Your task to perform on an android device: Search for a 36" x 48" whiteboard on Home Depot Image 0: 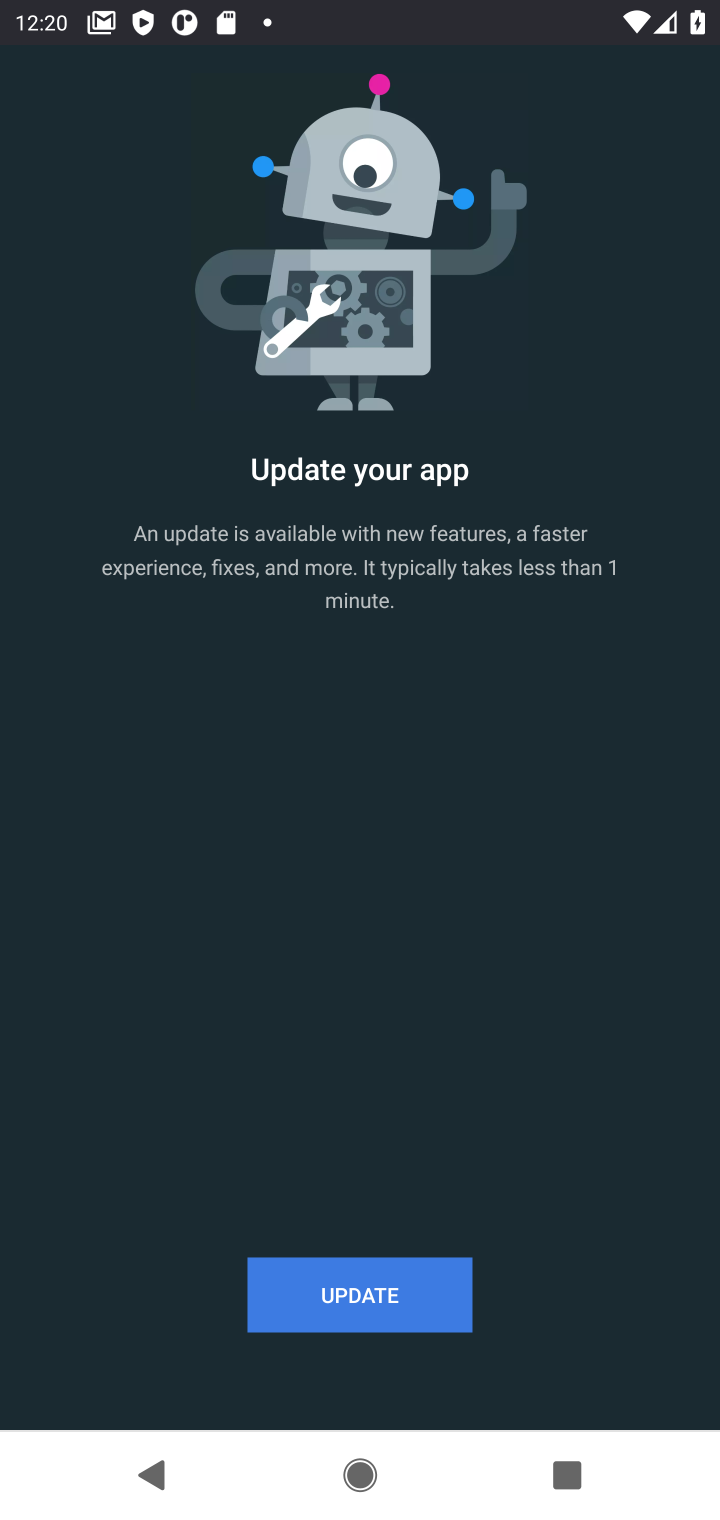
Step 0: press home button
Your task to perform on an android device: Search for a 36" x 48" whiteboard on Home Depot Image 1: 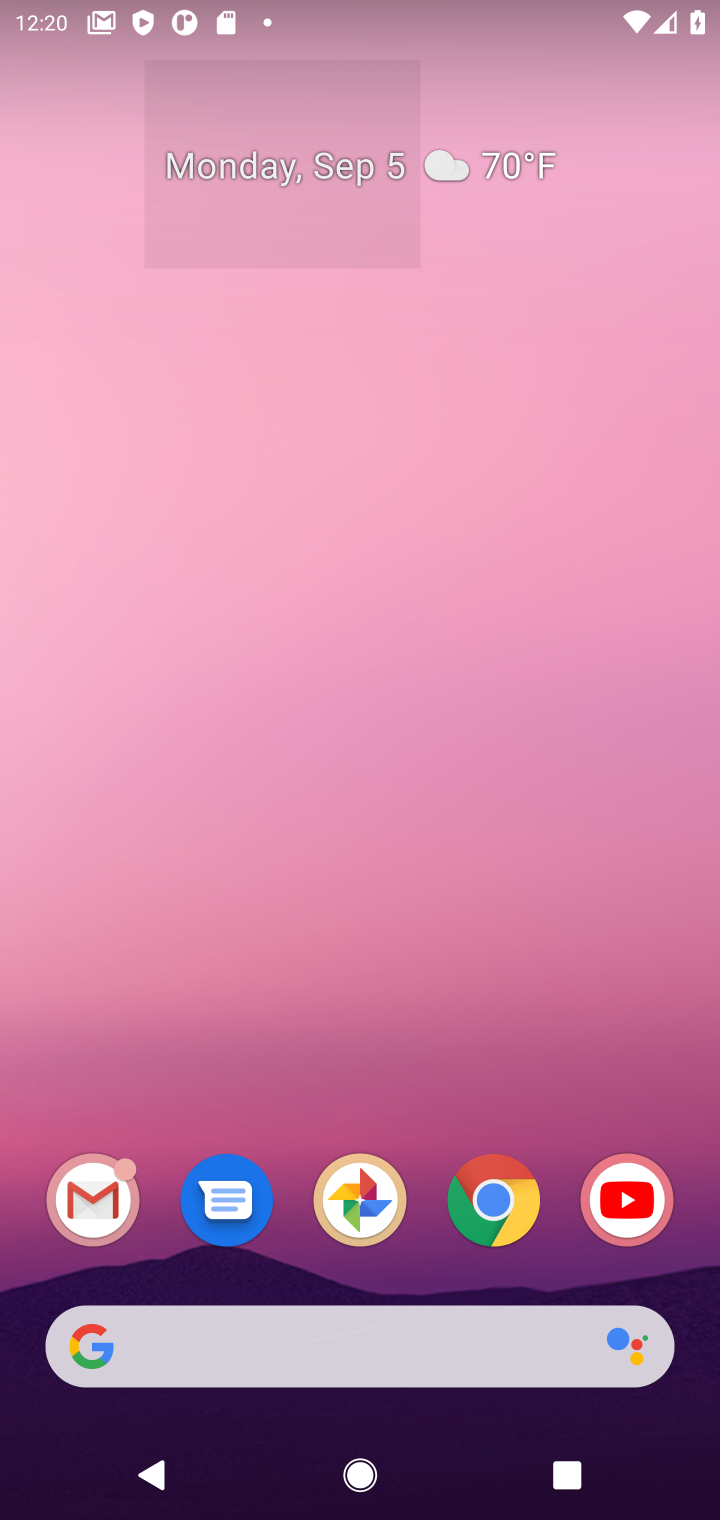
Step 1: click (483, 1219)
Your task to perform on an android device: Search for a 36" x 48" whiteboard on Home Depot Image 2: 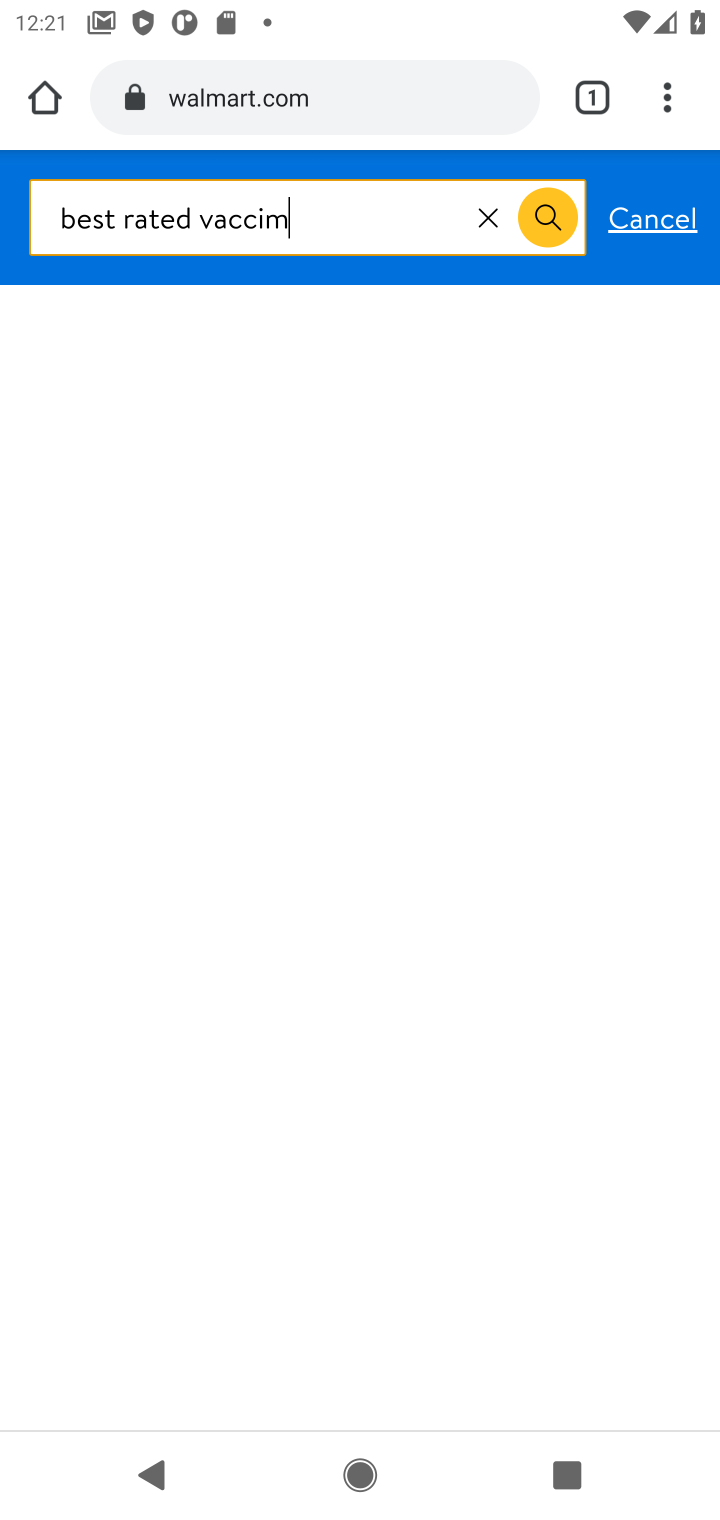
Step 2: click (415, 99)
Your task to perform on an android device: Search for a 36" x 48" whiteboard on Home Depot Image 3: 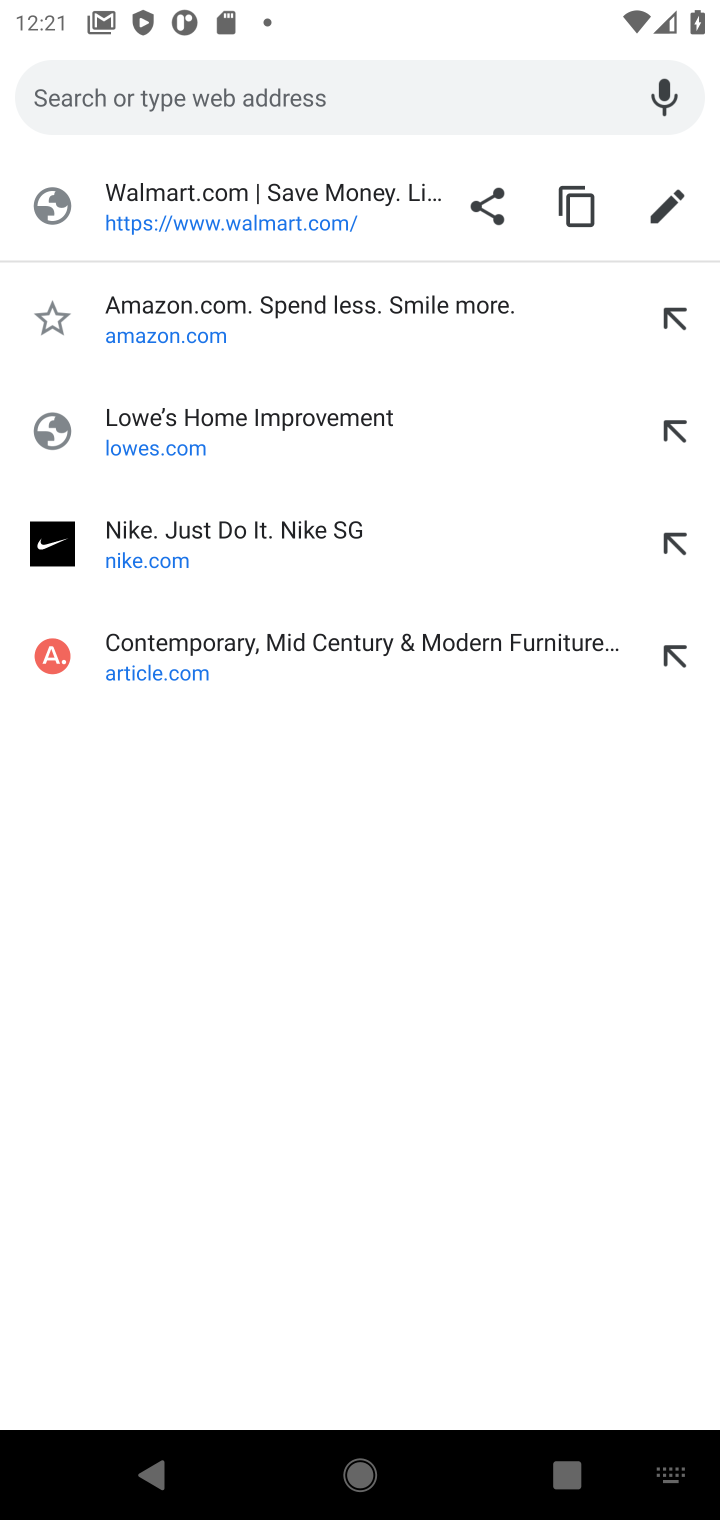
Step 3: type "home depot"
Your task to perform on an android device: Search for a 36" x 48" whiteboard on Home Depot Image 4: 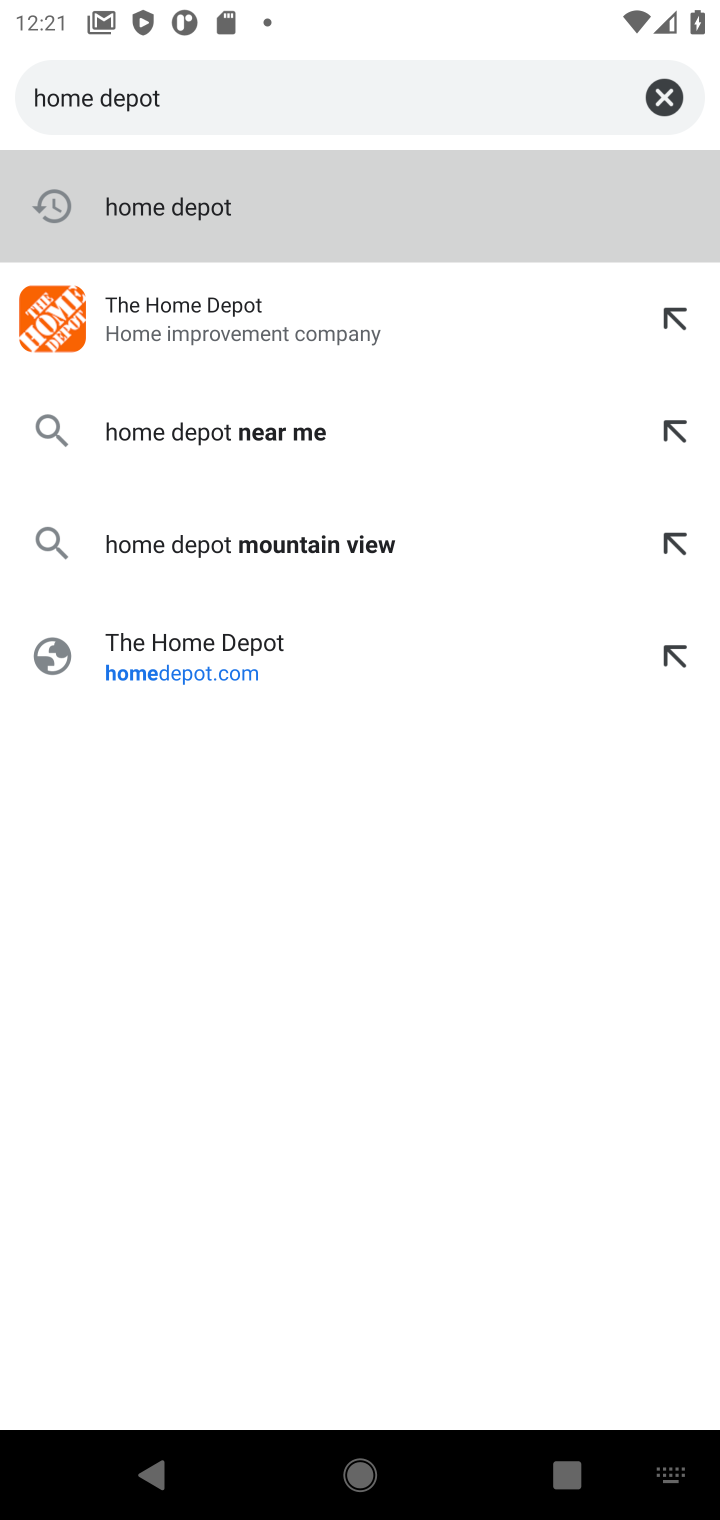
Step 4: click (61, 345)
Your task to perform on an android device: Search for a 36" x 48" whiteboard on Home Depot Image 5: 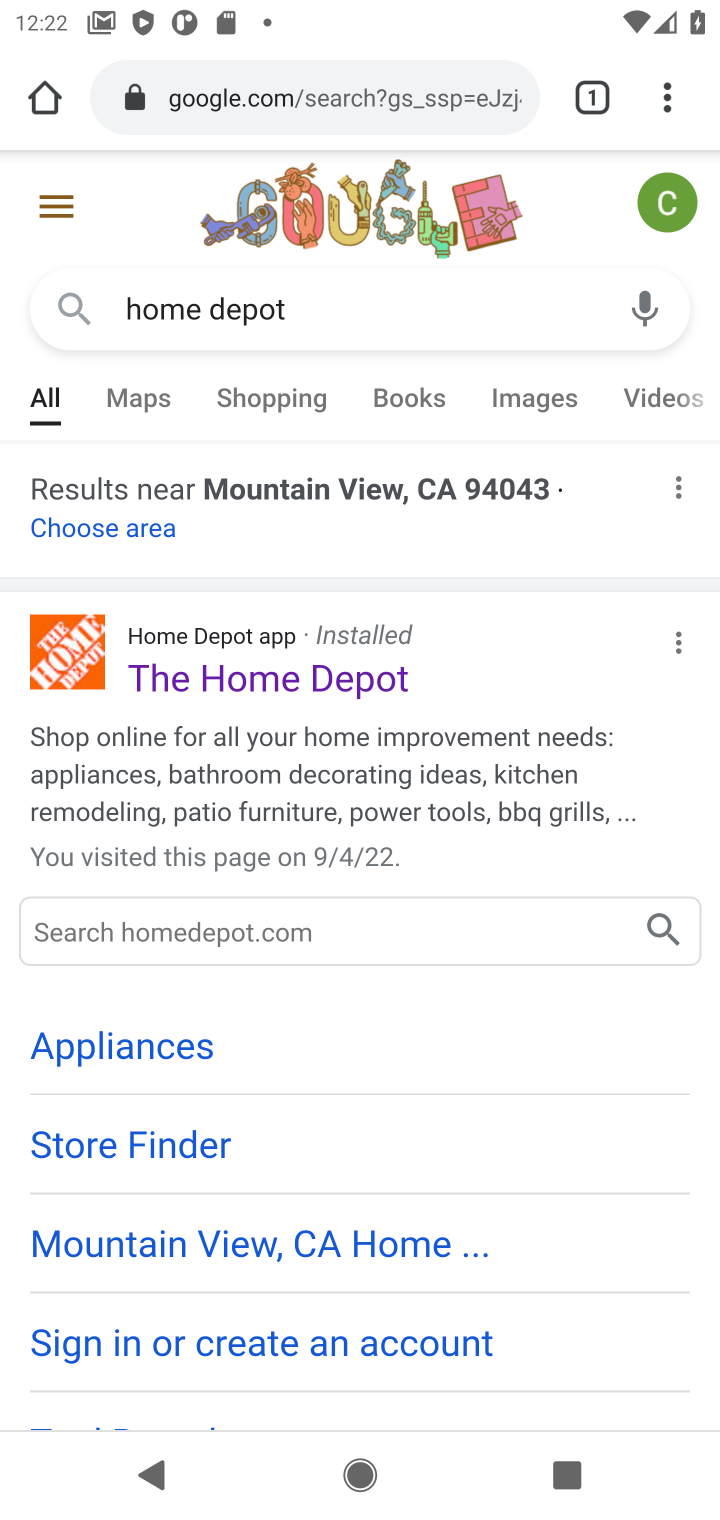
Step 5: click (79, 662)
Your task to perform on an android device: Search for a 36" x 48" whiteboard on Home Depot Image 6: 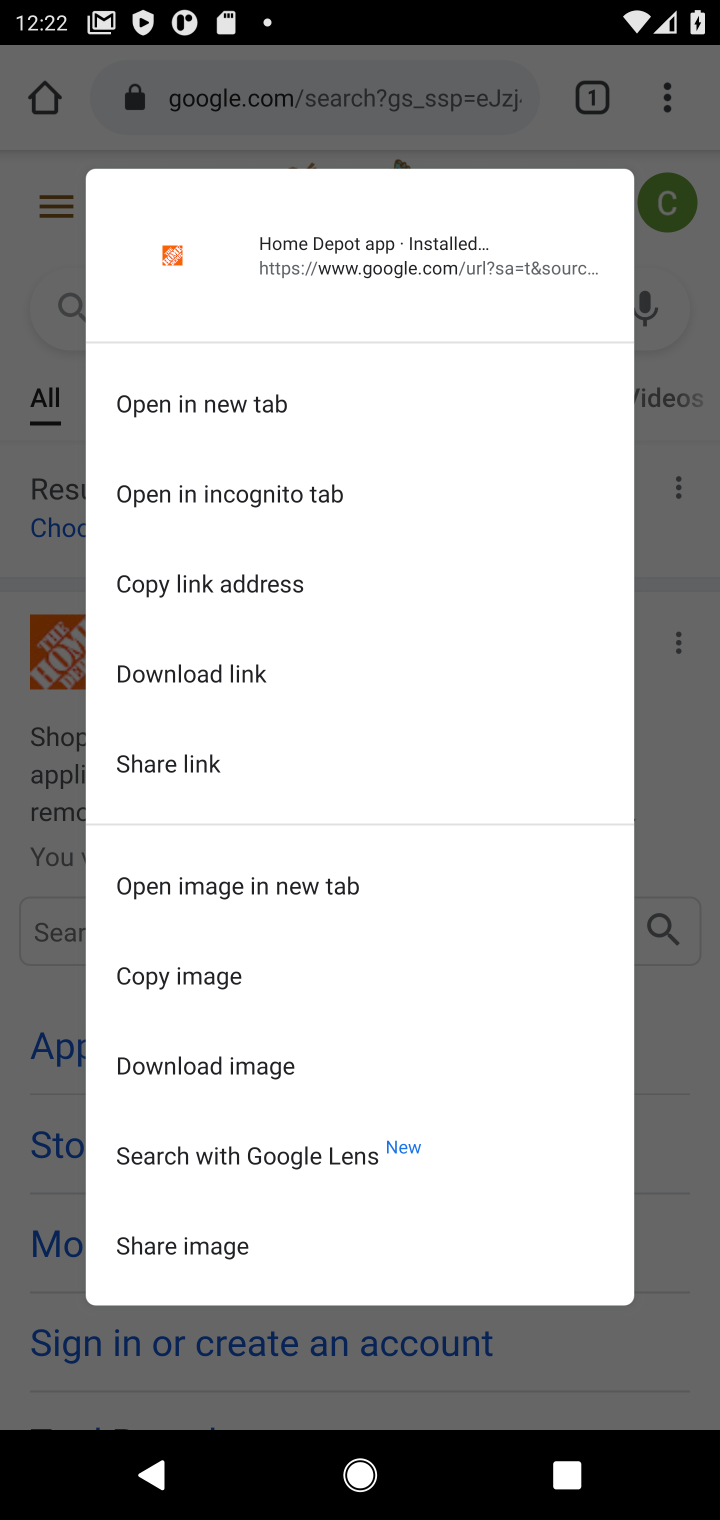
Step 6: click (38, 461)
Your task to perform on an android device: Search for a 36" x 48" whiteboard on Home Depot Image 7: 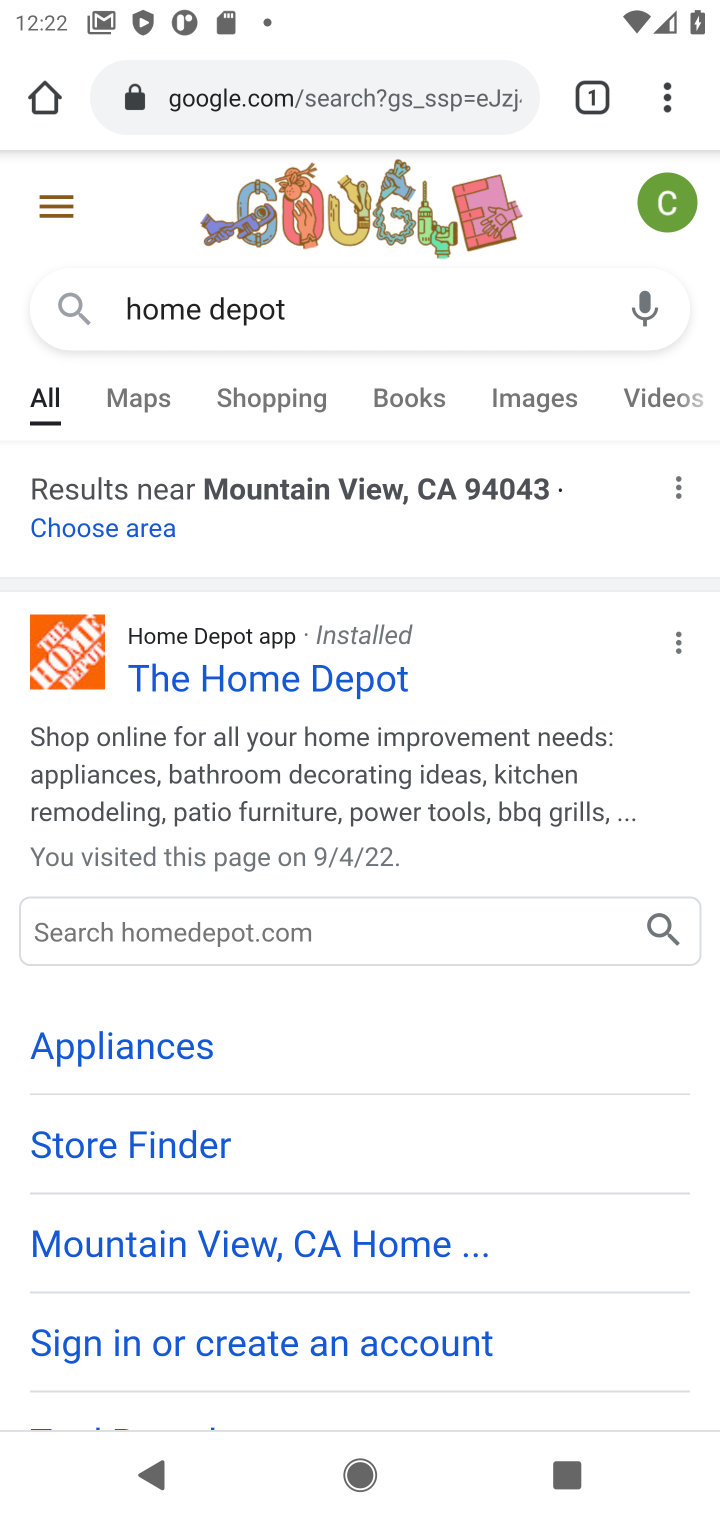
Step 7: click (74, 649)
Your task to perform on an android device: Search for a 36" x 48" whiteboard on Home Depot Image 8: 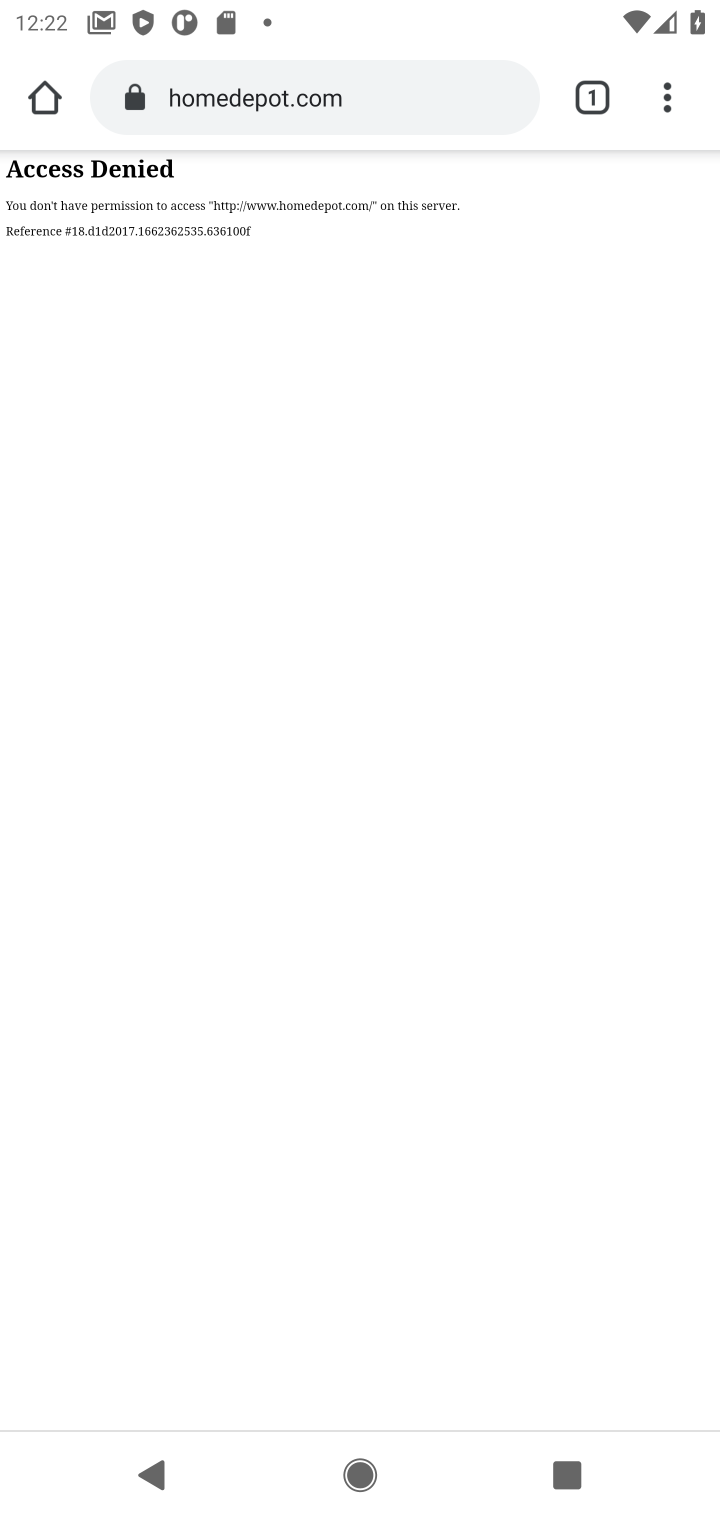
Step 8: task complete